Your task to perform on an android device: turn off wifi Image 0: 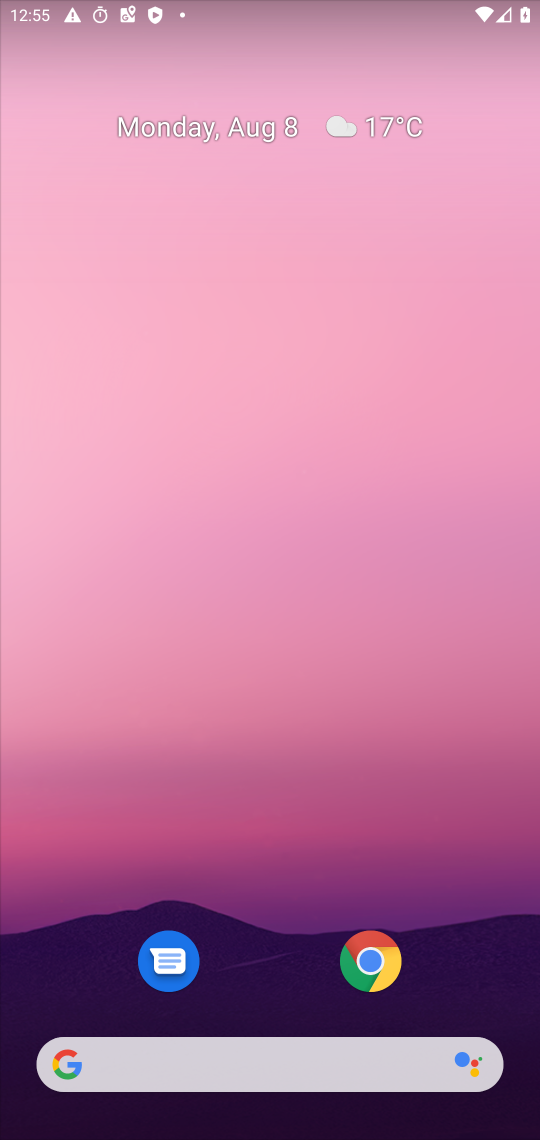
Step 0: drag from (236, 1077) to (324, 248)
Your task to perform on an android device: turn off wifi Image 1: 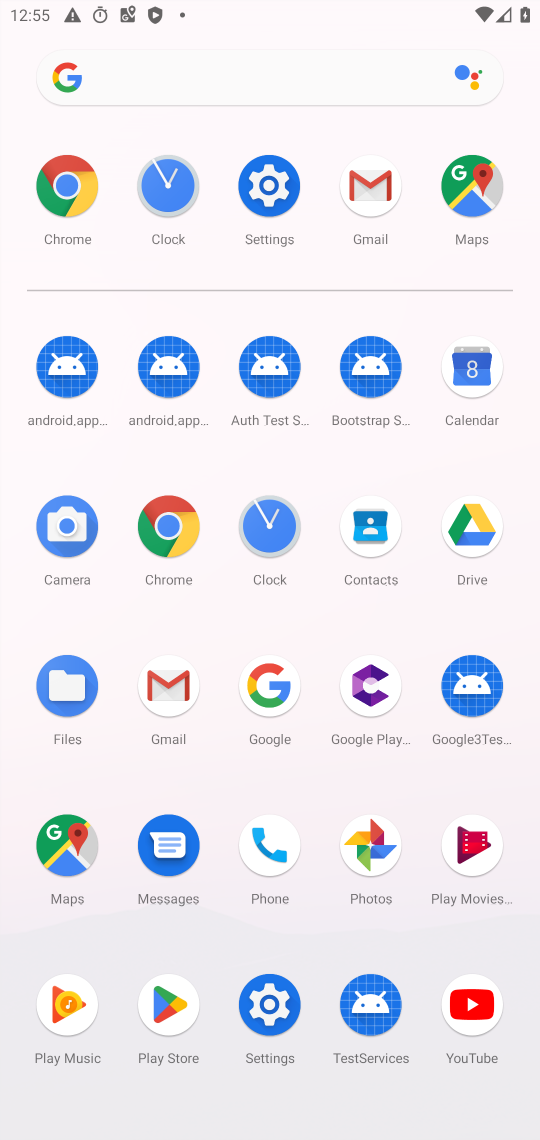
Step 1: click (257, 176)
Your task to perform on an android device: turn off wifi Image 2: 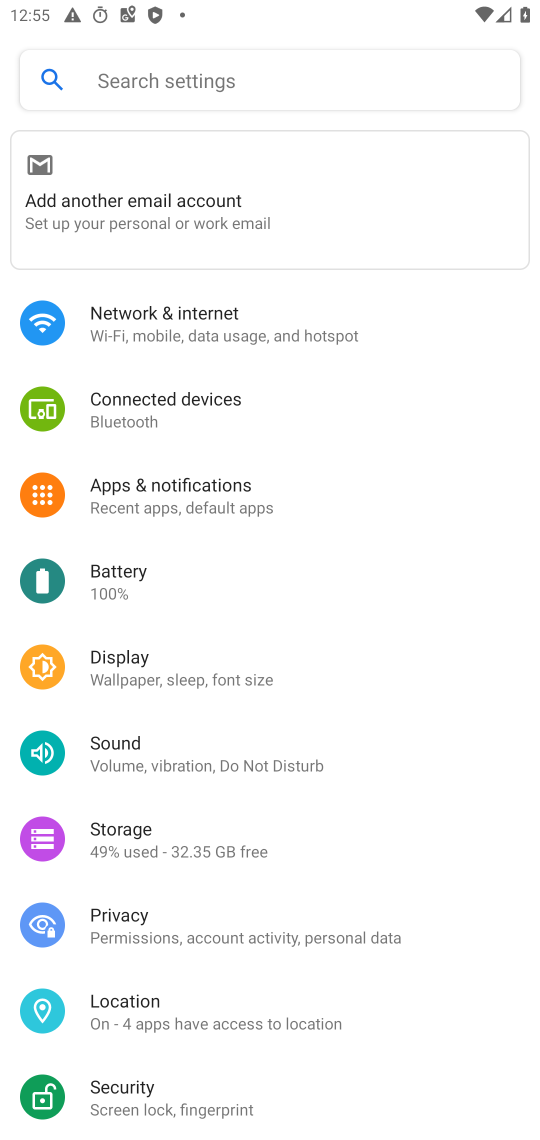
Step 2: click (163, 325)
Your task to perform on an android device: turn off wifi Image 3: 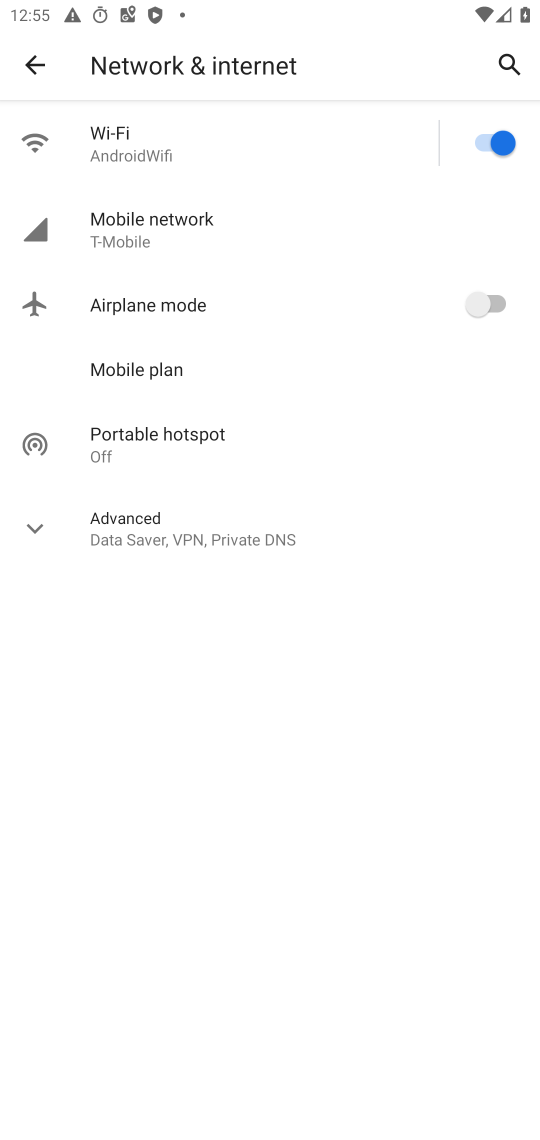
Step 3: click (480, 134)
Your task to perform on an android device: turn off wifi Image 4: 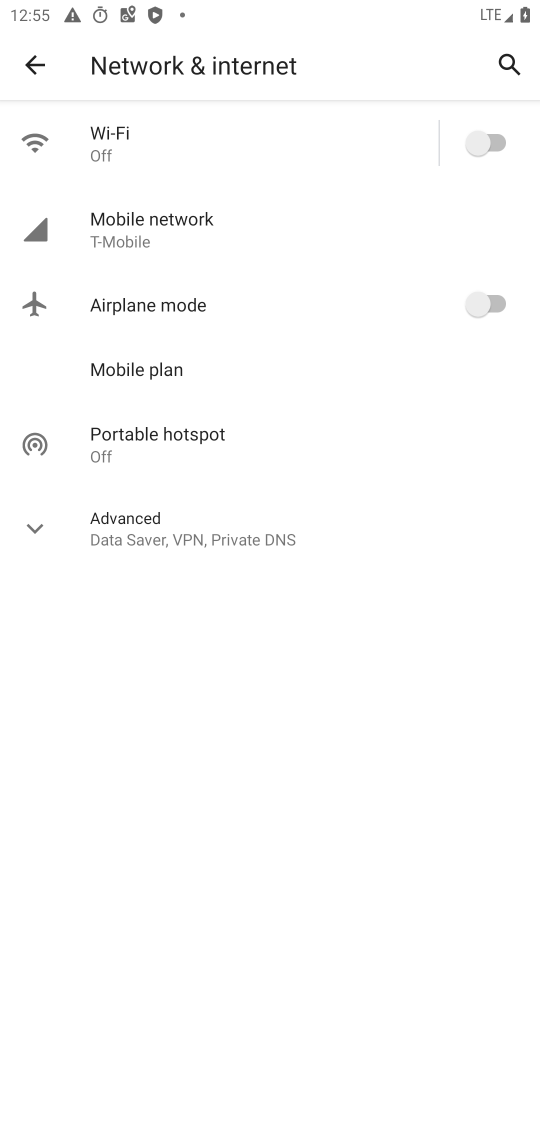
Step 4: task complete